Your task to perform on an android device: open the mobile data screen to see how much data has been used Image 0: 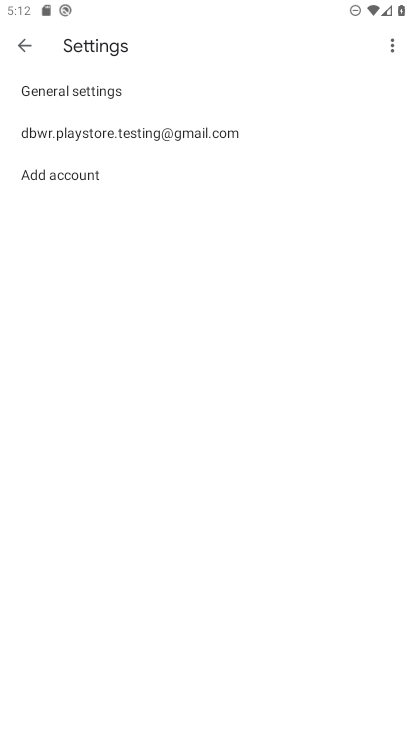
Step 0: press home button
Your task to perform on an android device: open the mobile data screen to see how much data has been used Image 1: 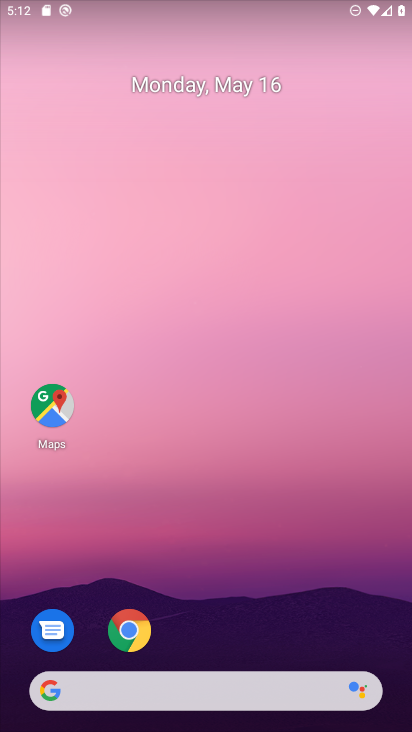
Step 1: drag from (195, 1) to (235, 730)
Your task to perform on an android device: open the mobile data screen to see how much data has been used Image 2: 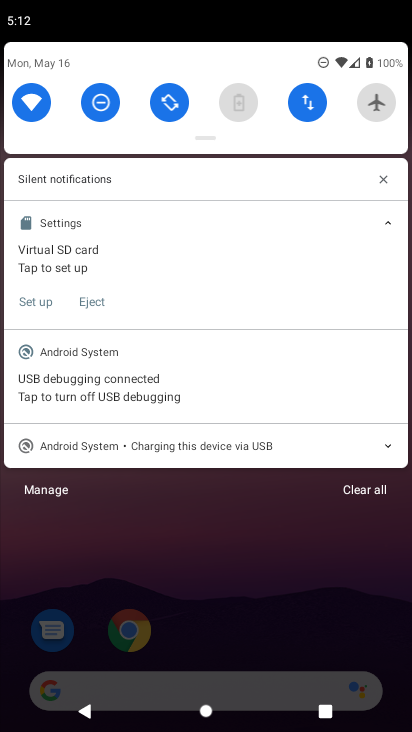
Step 2: click (311, 109)
Your task to perform on an android device: open the mobile data screen to see how much data has been used Image 3: 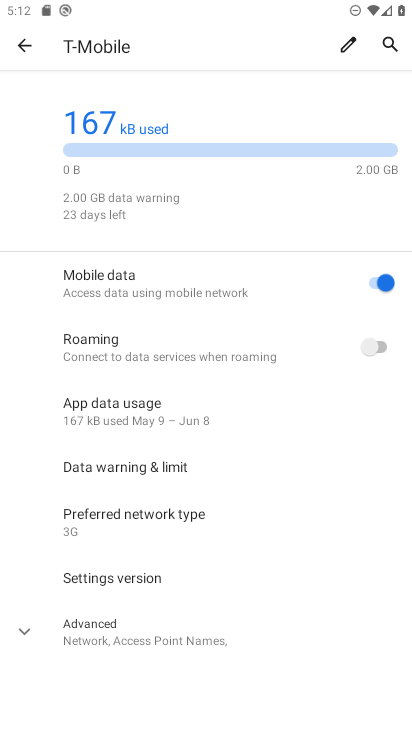
Step 3: task complete